Your task to perform on an android device: check google app version Image 0: 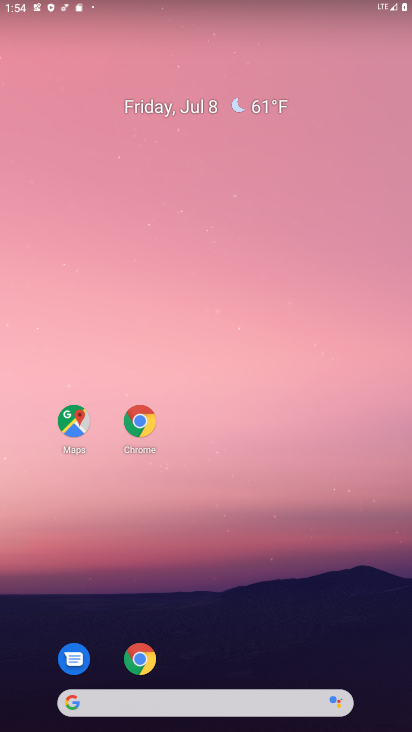
Step 0: drag from (221, 664) to (289, 41)
Your task to perform on an android device: check google app version Image 1: 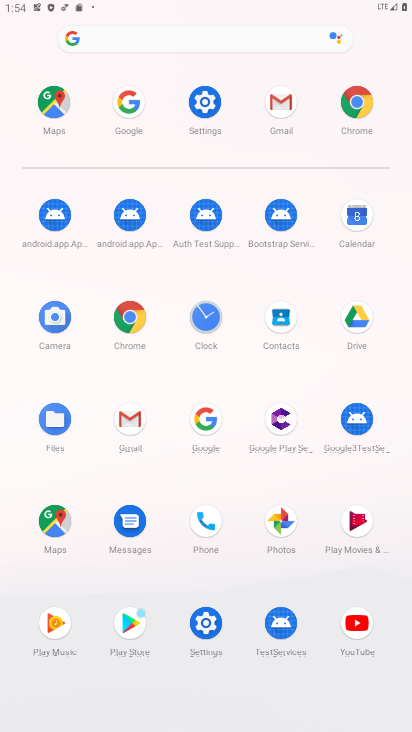
Step 1: click (208, 416)
Your task to perform on an android device: check google app version Image 2: 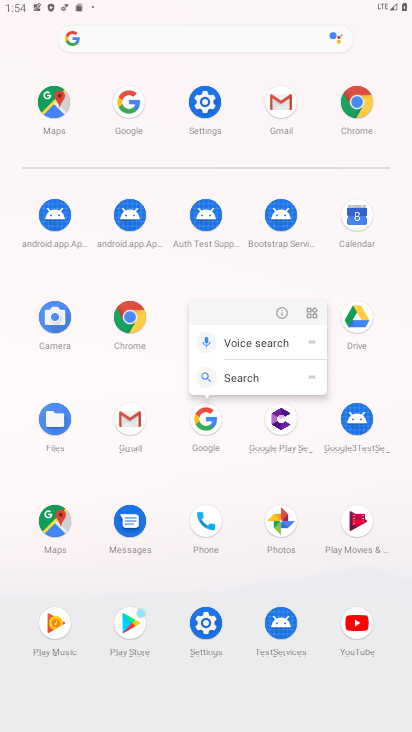
Step 2: click (284, 313)
Your task to perform on an android device: check google app version Image 3: 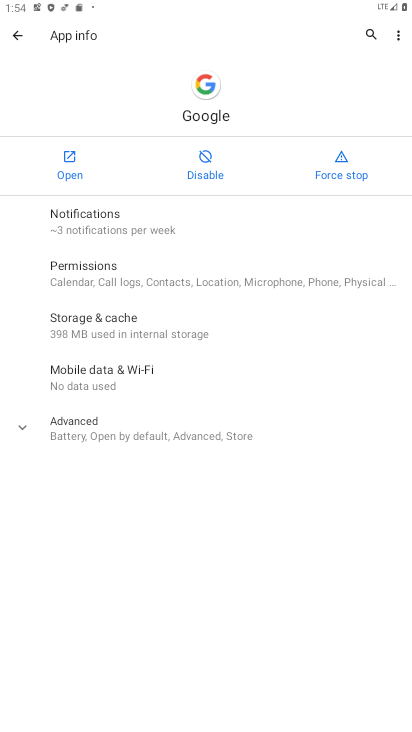
Step 3: click (107, 413)
Your task to perform on an android device: check google app version Image 4: 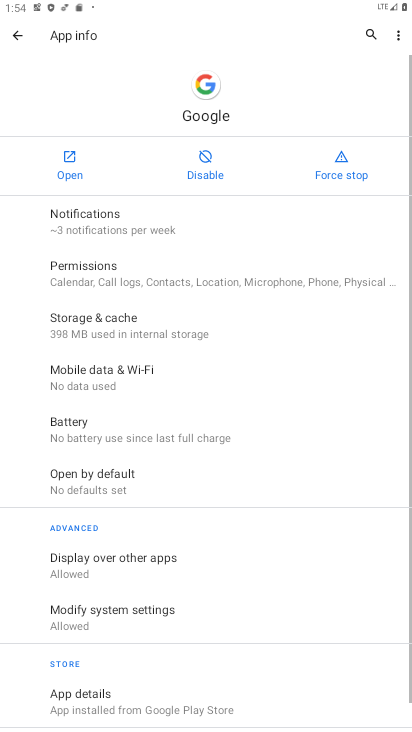
Step 4: task complete